Your task to perform on an android device: Search for seafood restaurants on Google Maps Image 0: 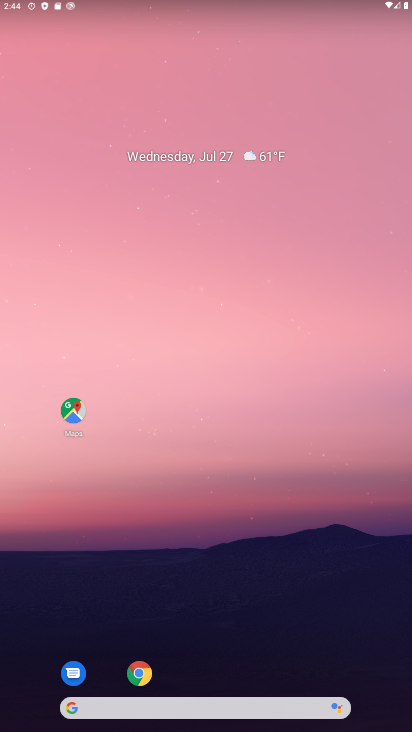
Step 0: click (68, 409)
Your task to perform on an android device: Search for seafood restaurants on Google Maps Image 1: 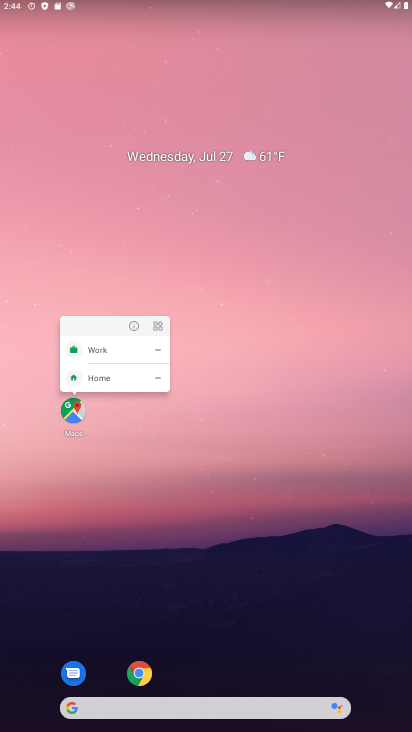
Step 1: click (72, 420)
Your task to perform on an android device: Search for seafood restaurants on Google Maps Image 2: 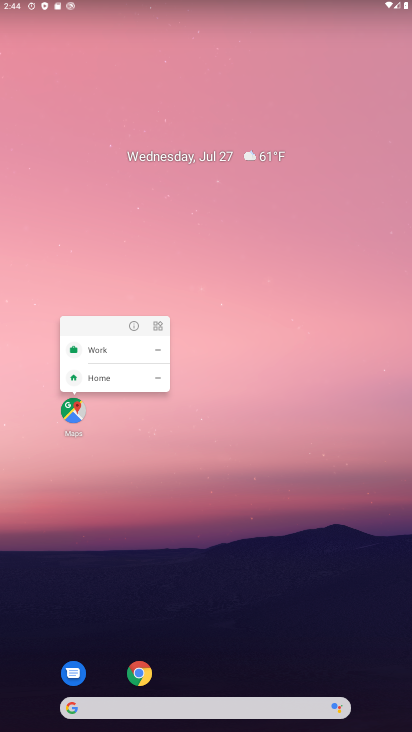
Step 2: click (72, 405)
Your task to perform on an android device: Search for seafood restaurants on Google Maps Image 3: 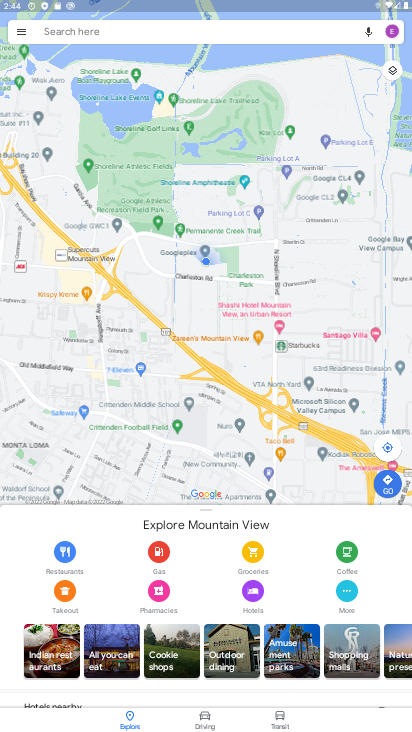
Step 3: click (56, 25)
Your task to perform on an android device: Search for seafood restaurants on Google Maps Image 4: 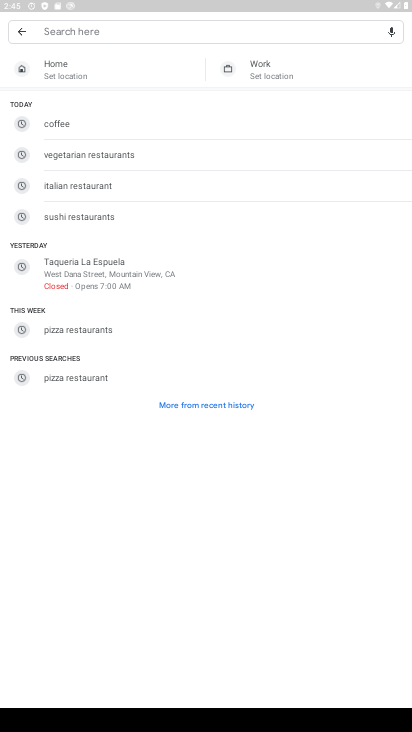
Step 4: type "seafood restaurants"
Your task to perform on an android device: Search for seafood restaurants on Google Maps Image 5: 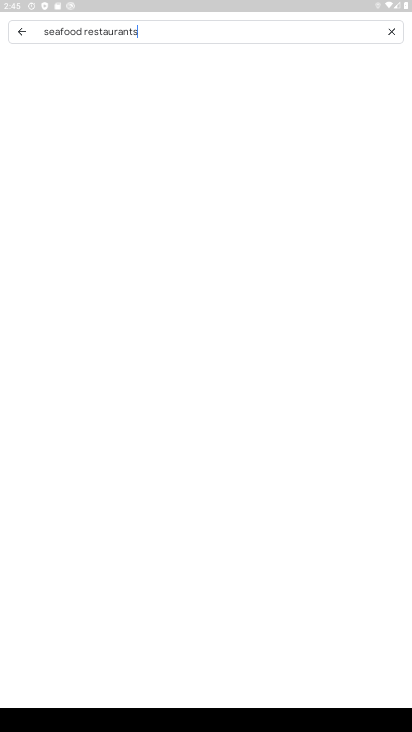
Step 5: type ""
Your task to perform on an android device: Search for seafood restaurants on Google Maps Image 6: 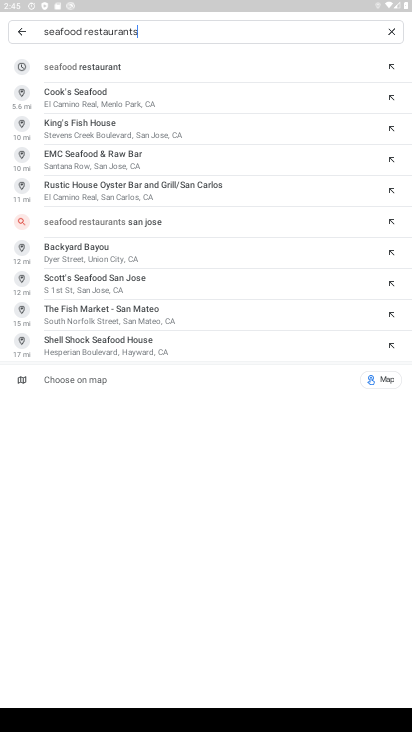
Step 6: type ""
Your task to perform on an android device: Search for seafood restaurants on Google Maps Image 7: 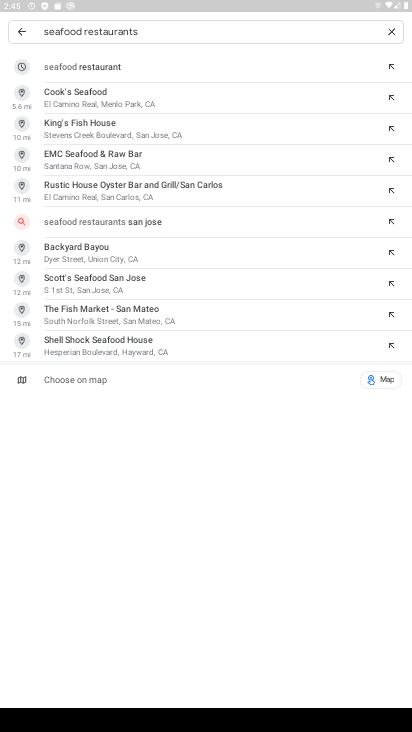
Step 7: type ""
Your task to perform on an android device: Search for seafood restaurants on Google Maps Image 8: 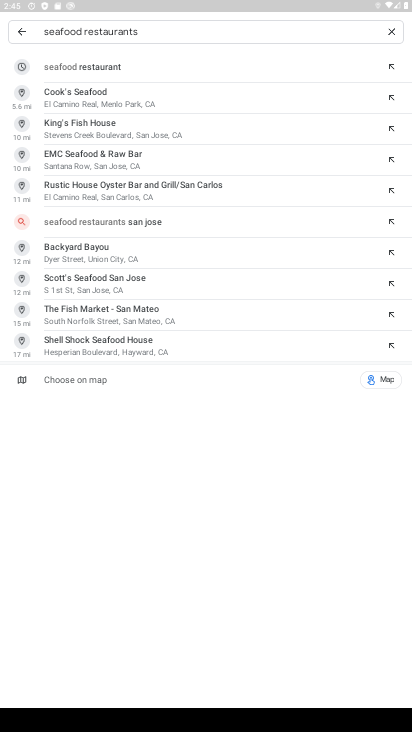
Step 8: task complete